Your task to perform on an android device: Search for sushi restaurants on Maps Image 0: 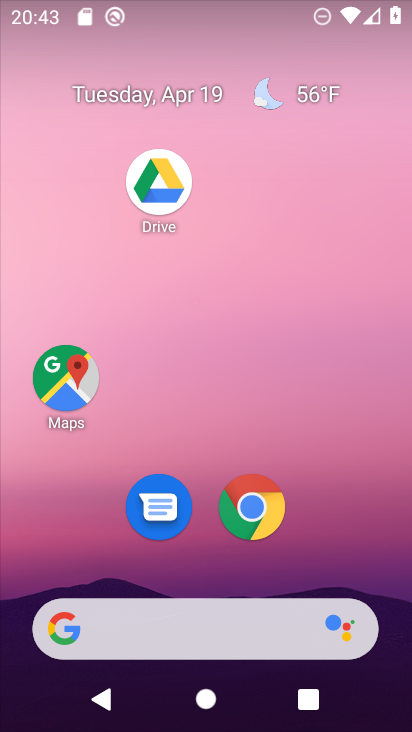
Step 0: click (69, 377)
Your task to perform on an android device: Search for sushi restaurants on Maps Image 1: 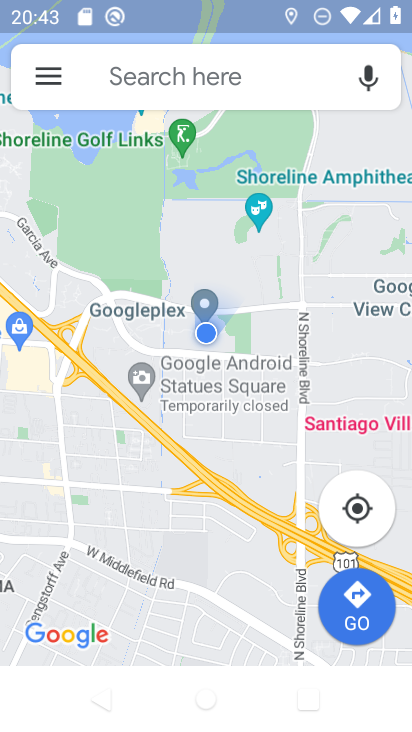
Step 1: click (242, 62)
Your task to perform on an android device: Search for sushi restaurants on Maps Image 2: 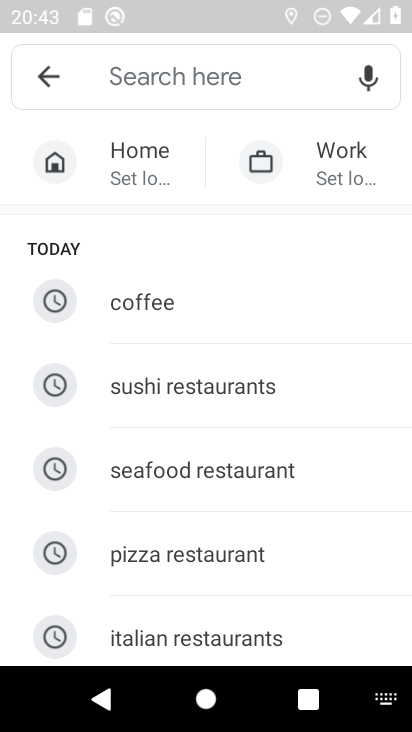
Step 2: click (215, 383)
Your task to perform on an android device: Search for sushi restaurants on Maps Image 3: 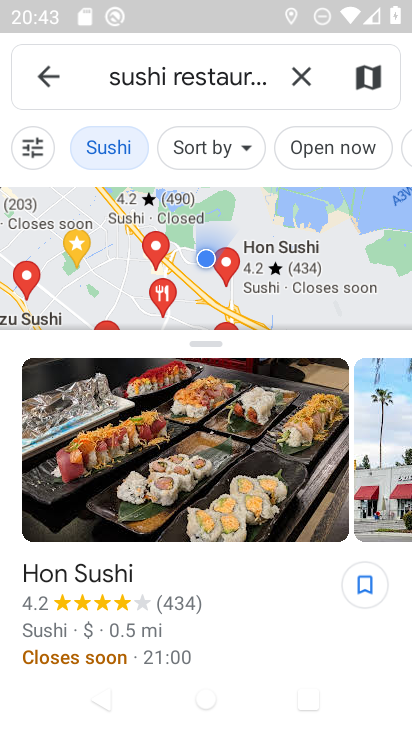
Step 3: task complete